Your task to perform on an android device: Check the weather Image 0: 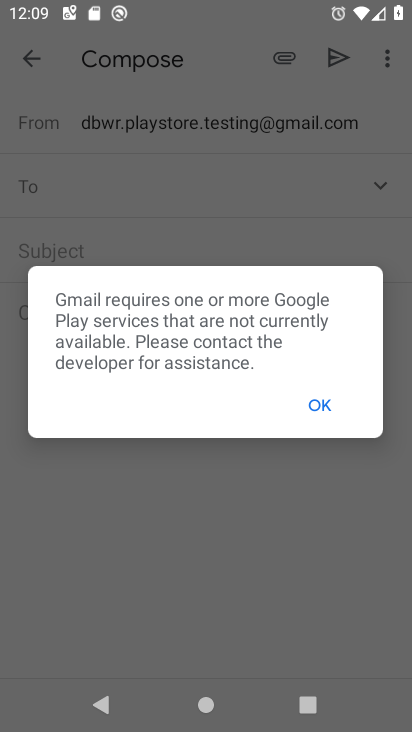
Step 0: click (316, 406)
Your task to perform on an android device: Check the weather Image 1: 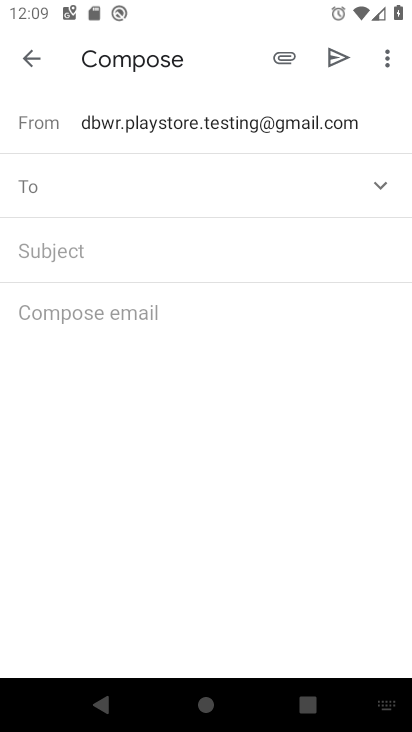
Step 1: press home button
Your task to perform on an android device: Check the weather Image 2: 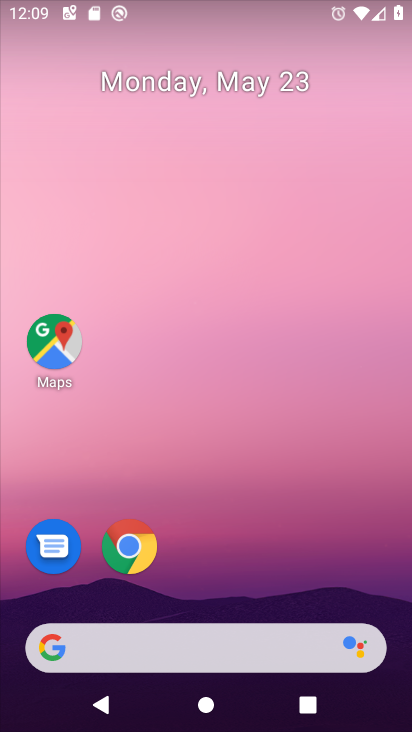
Step 2: drag from (305, 646) to (304, 0)
Your task to perform on an android device: Check the weather Image 3: 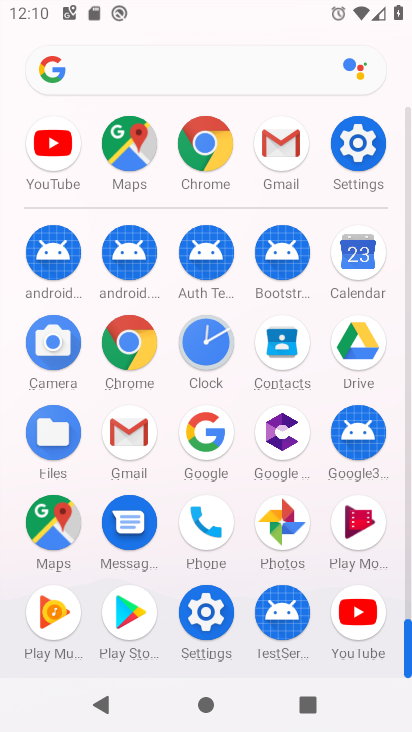
Step 3: click (216, 449)
Your task to perform on an android device: Check the weather Image 4: 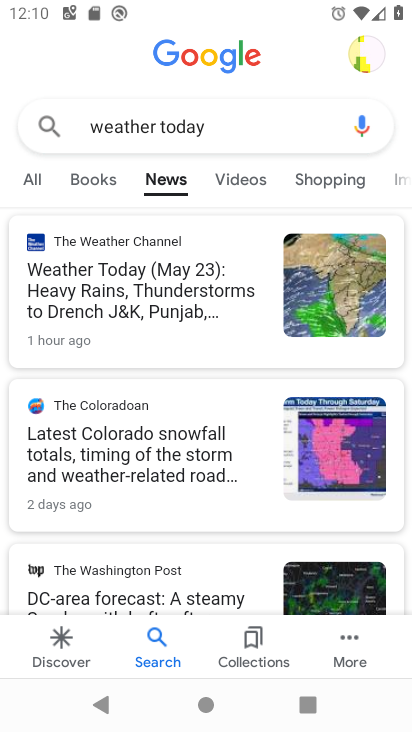
Step 4: click (31, 175)
Your task to perform on an android device: Check the weather Image 5: 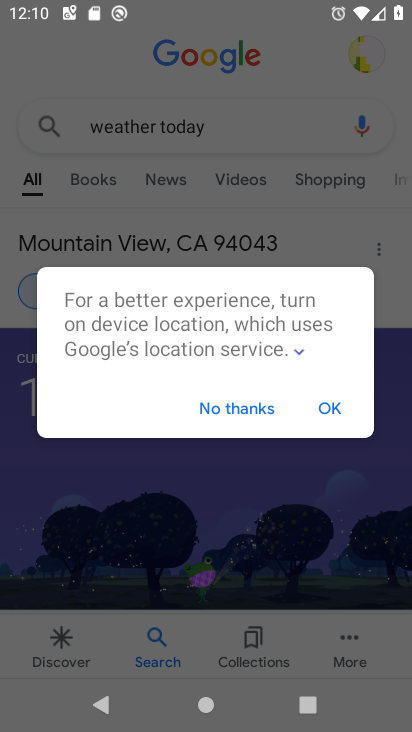
Step 5: click (330, 416)
Your task to perform on an android device: Check the weather Image 6: 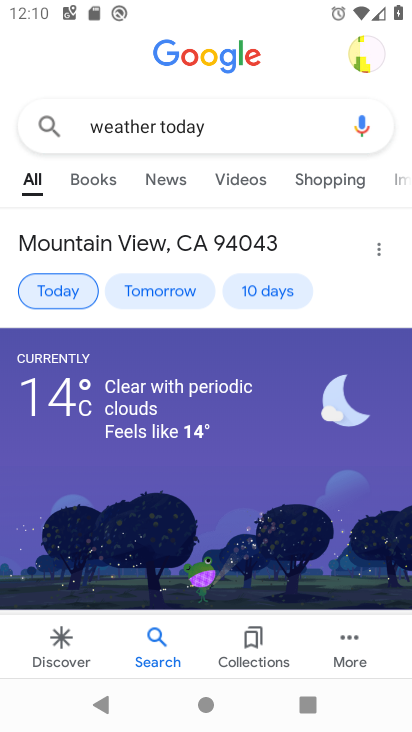
Step 6: task complete